Your task to perform on an android device: add a contact Image 0: 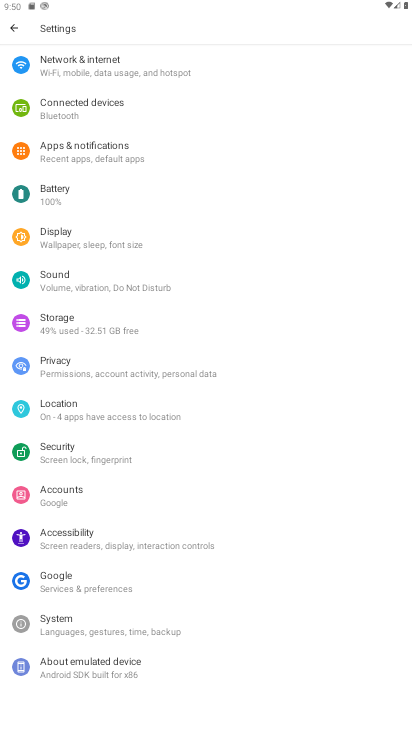
Step 0: press home button
Your task to perform on an android device: add a contact Image 1: 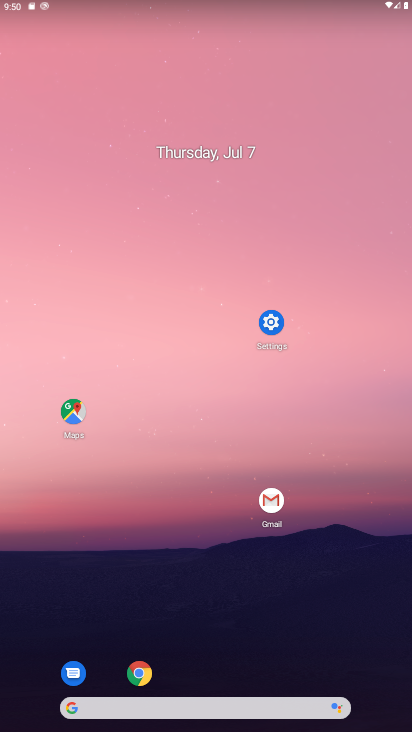
Step 1: drag from (393, 695) to (389, 122)
Your task to perform on an android device: add a contact Image 2: 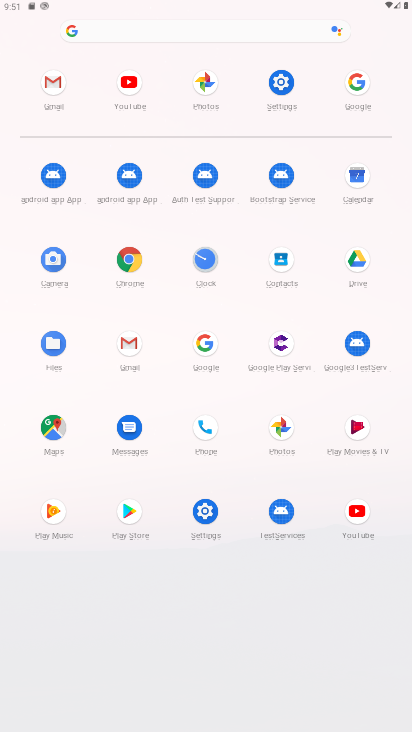
Step 2: click (274, 264)
Your task to perform on an android device: add a contact Image 3: 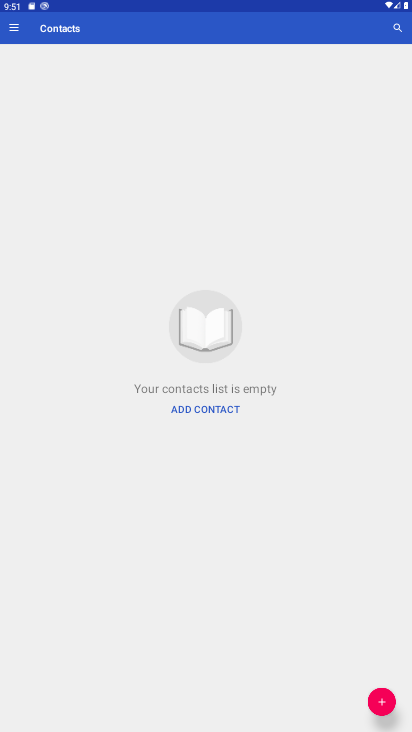
Step 3: press back button
Your task to perform on an android device: add a contact Image 4: 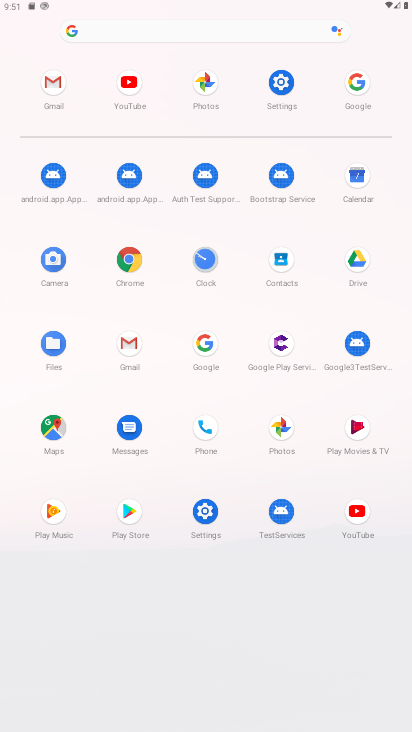
Step 4: click (279, 265)
Your task to perform on an android device: add a contact Image 5: 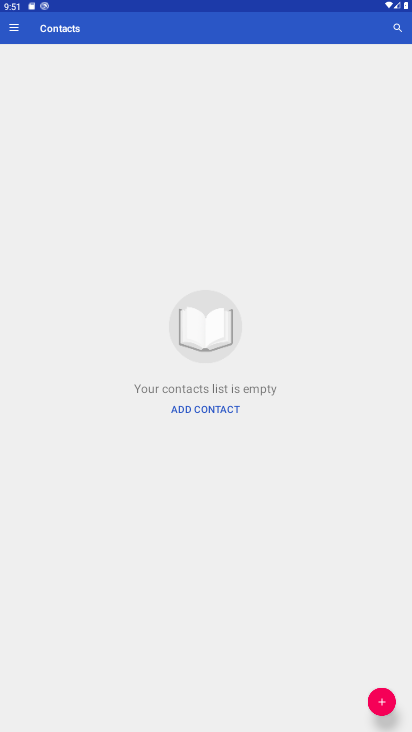
Step 5: click (381, 703)
Your task to perform on an android device: add a contact Image 6: 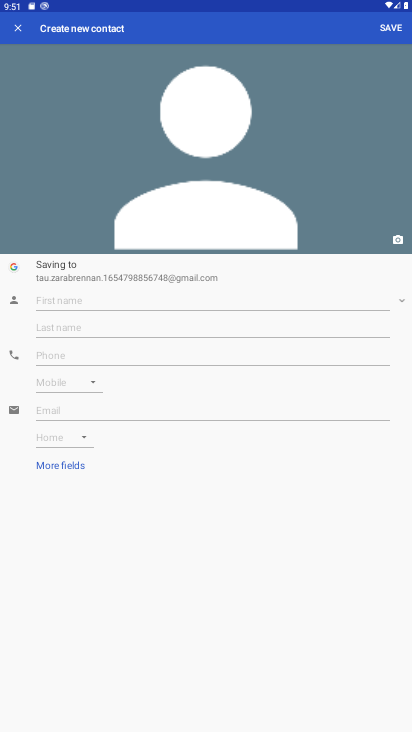
Step 6: click (78, 294)
Your task to perform on an android device: add a contact Image 7: 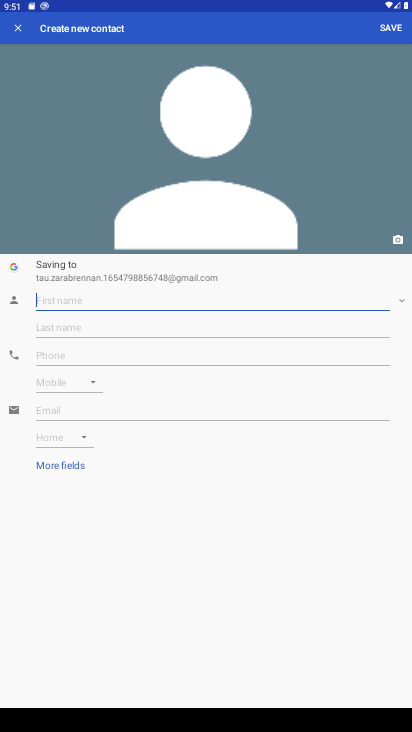
Step 7: type "hdhgchg"
Your task to perform on an android device: add a contact Image 8: 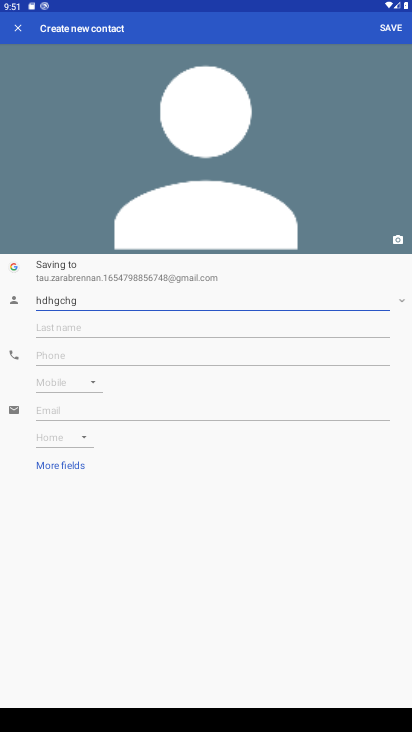
Step 8: click (74, 322)
Your task to perform on an android device: add a contact Image 9: 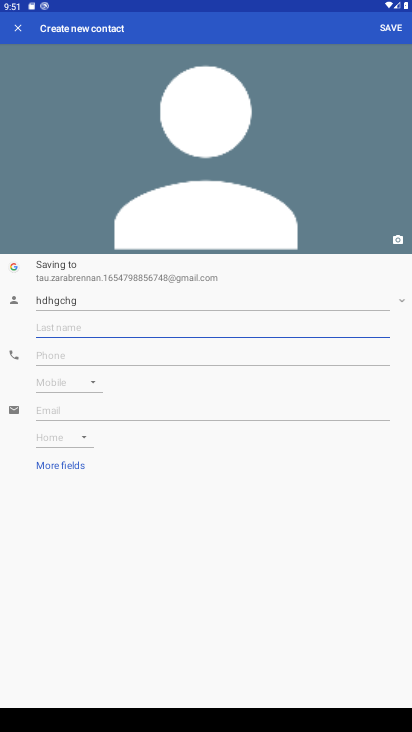
Step 9: type "uftittkfvj"
Your task to perform on an android device: add a contact Image 10: 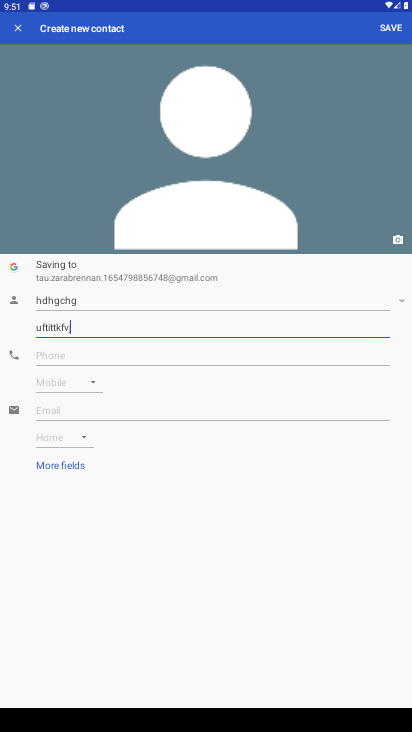
Step 10: click (56, 358)
Your task to perform on an android device: add a contact Image 11: 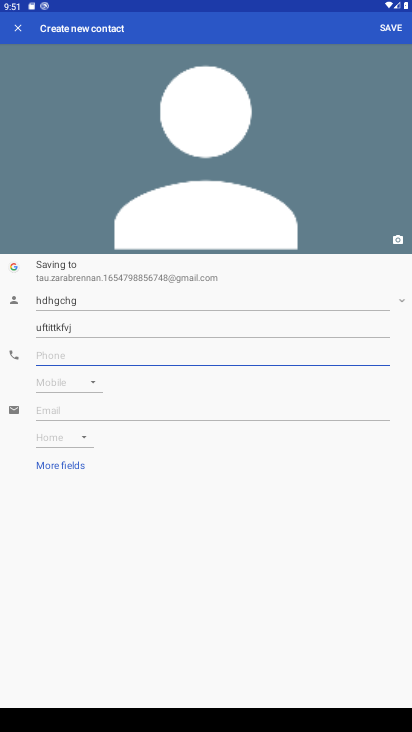
Step 11: type "47885245346"
Your task to perform on an android device: add a contact Image 12: 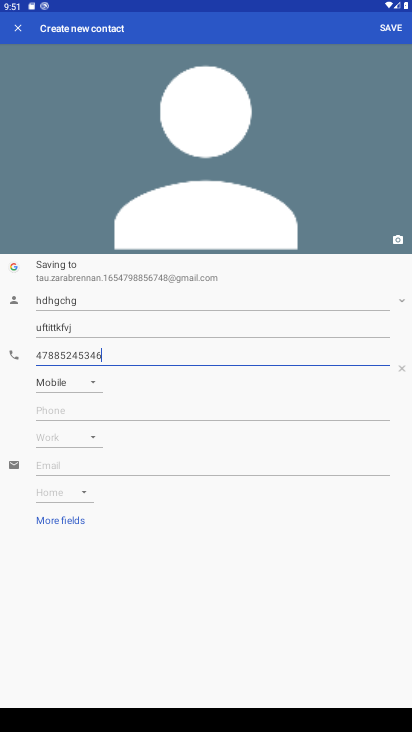
Step 12: click (388, 30)
Your task to perform on an android device: add a contact Image 13: 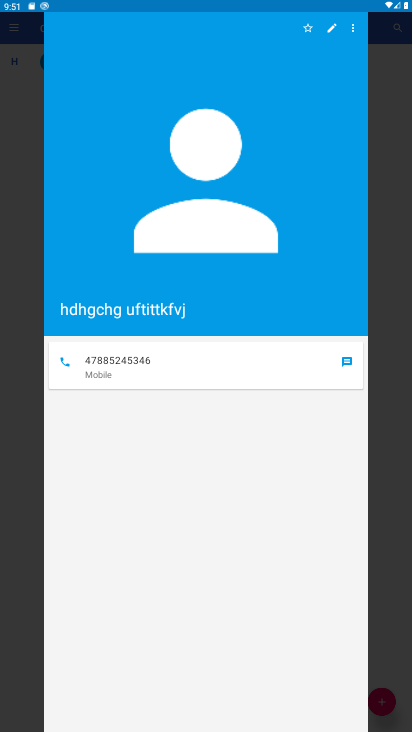
Step 13: task complete